Your task to perform on an android device: open app "Gmail" Image 0: 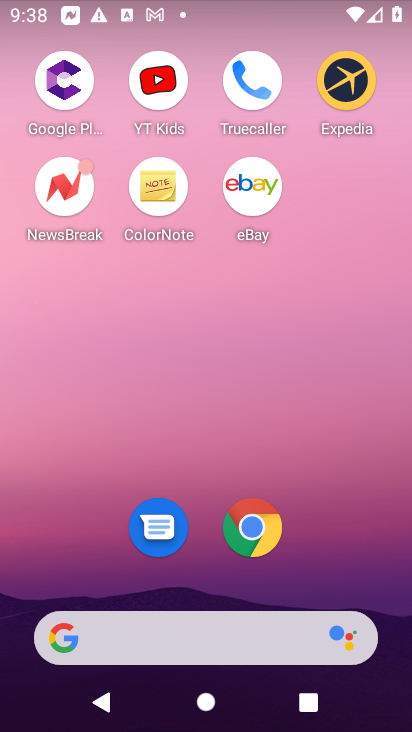
Step 0: drag from (213, 600) to (236, 432)
Your task to perform on an android device: open app "Gmail" Image 1: 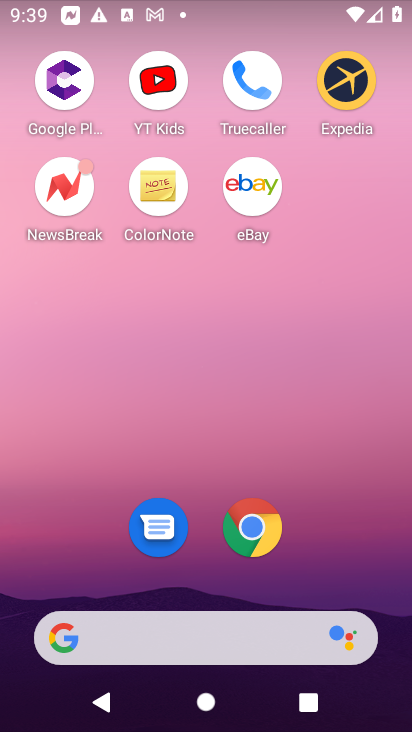
Step 1: drag from (177, 599) to (223, 94)
Your task to perform on an android device: open app "Gmail" Image 2: 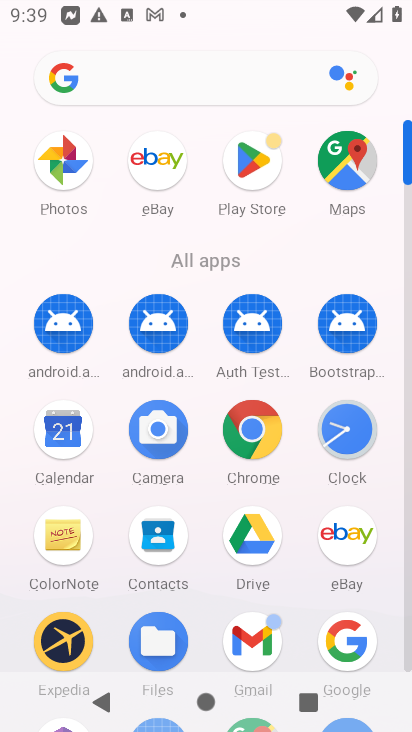
Step 2: click (261, 631)
Your task to perform on an android device: open app "Gmail" Image 3: 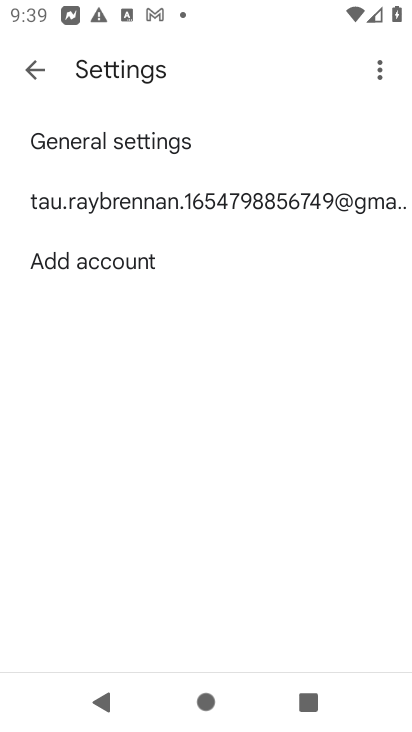
Step 3: click (30, 65)
Your task to perform on an android device: open app "Gmail" Image 4: 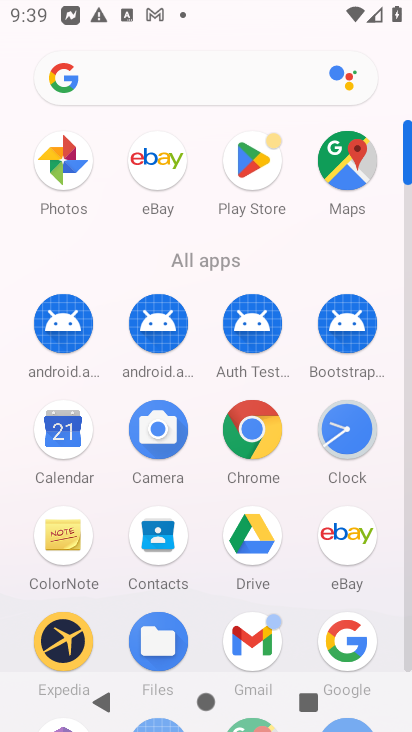
Step 4: click (251, 635)
Your task to perform on an android device: open app "Gmail" Image 5: 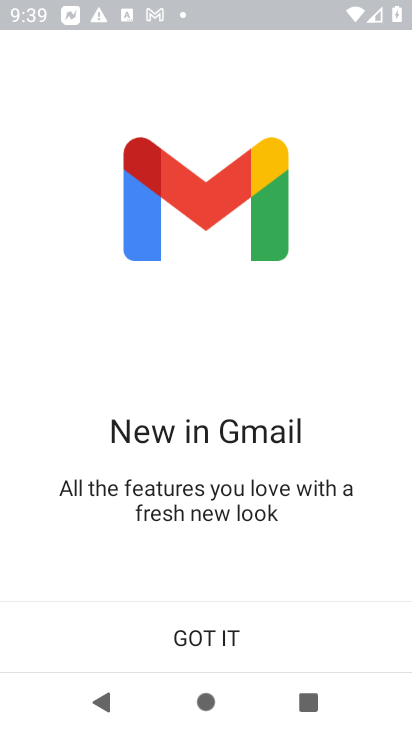
Step 5: click (230, 628)
Your task to perform on an android device: open app "Gmail" Image 6: 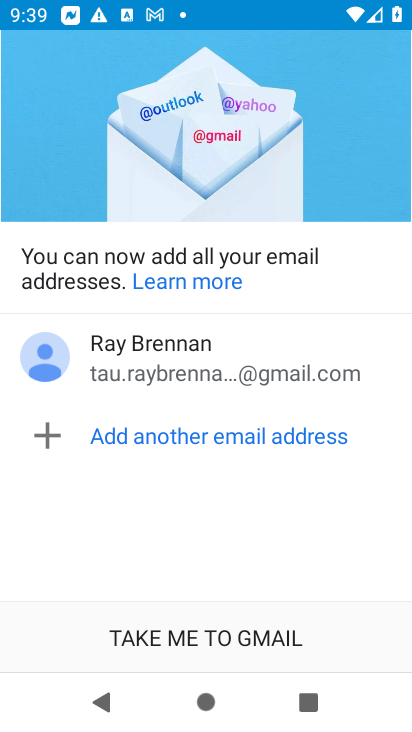
Step 6: click (231, 640)
Your task to perform on an android device: open app "Gmail" Image 7: 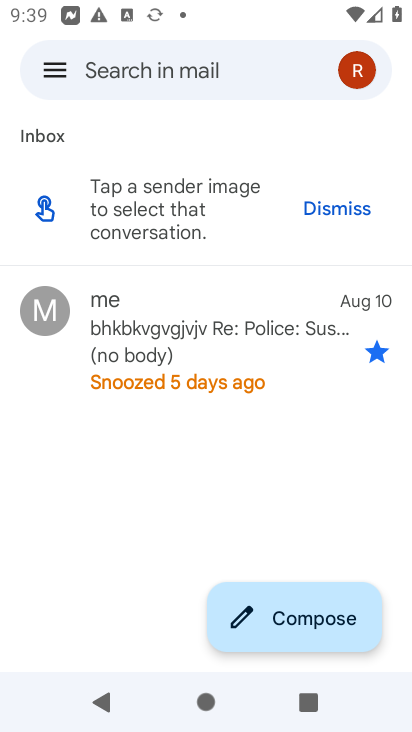
Step 7: task complete